Your task to perform on an android device: Go to network settings Image 0: 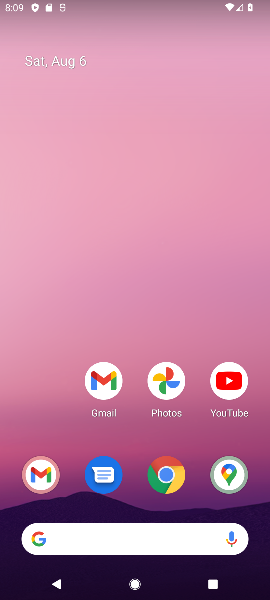
Step 0: drag from (136, 437) to (119, 87)
Your task to perform on an android device: Go to network settings Image 1: 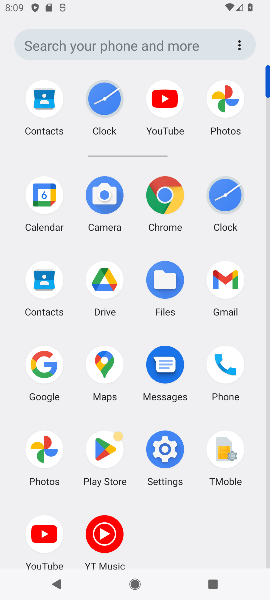
Step 1: click (158, 457)
Your task to perform on an android device: Go to network settings Image 2: 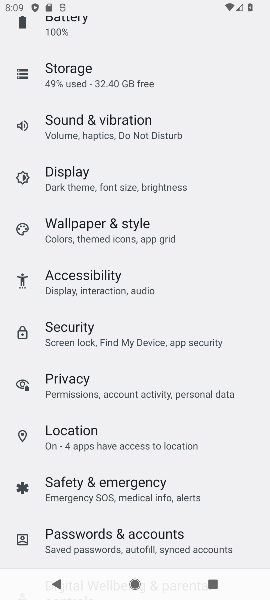
Step 2: drag from (105, 163) to (102, 492)
Your task to perform on an android device: Go to network settings Image 3: 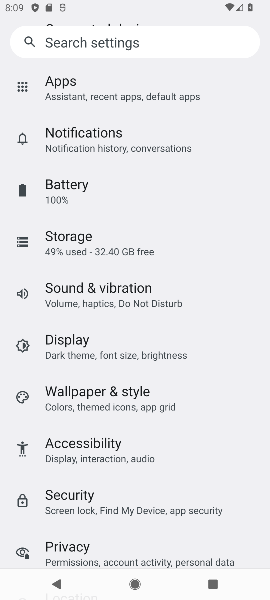
Step 3: drag from (106, 131) to (126, 453)
Your task to perform on an android device: Go to network settings Image 4: 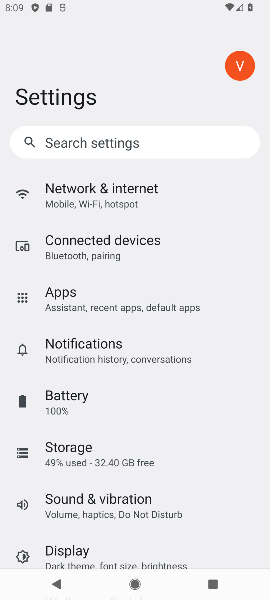
Step 4: click (114, 202)
Your task to perform on an android device: Go to network settings Image 5: 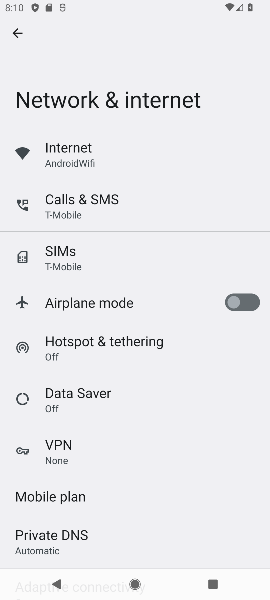
Step 5: click (71, 159)
Your task to perform on an android device: Go to network settings Image 6: 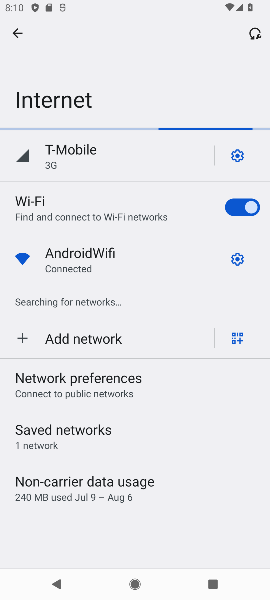
Step 6: task complete